Your task to perform on an android device: Go to sound settings Image 0: 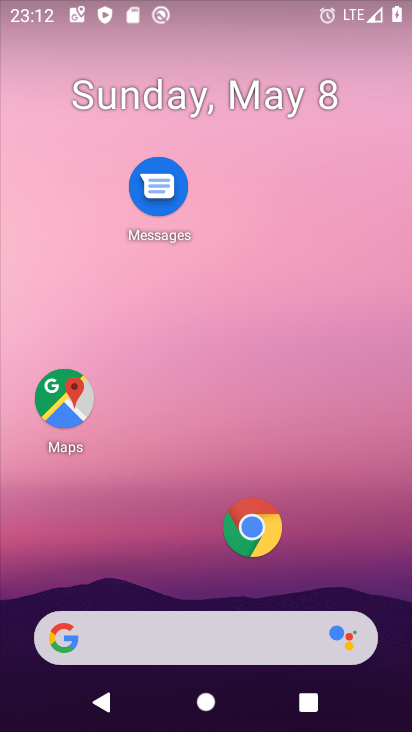
Step 0: drag from (182, 578) to (192, 131)
Your task to perform on an android device: Go to sound settings Image 1: 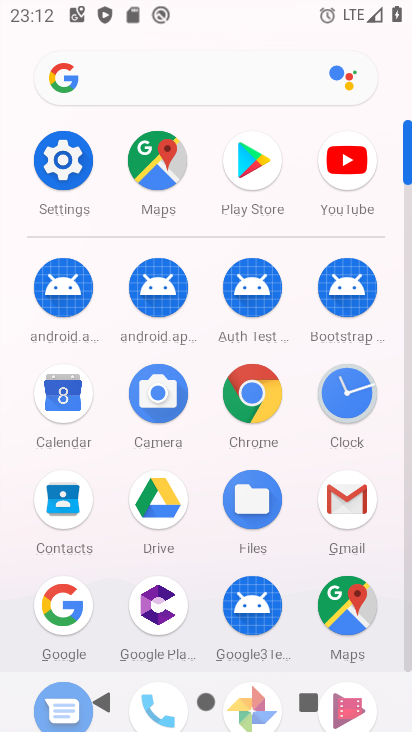
Step 1: click (63, 162)
Your task to perform on an android device: Go to sound settings Image 2: 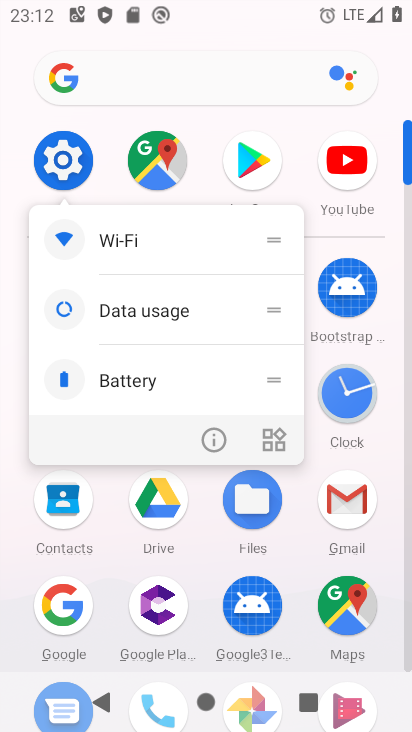
Step 2: click (65, 157)
Your task to perform on an android device: Go to sound settings Image 3: 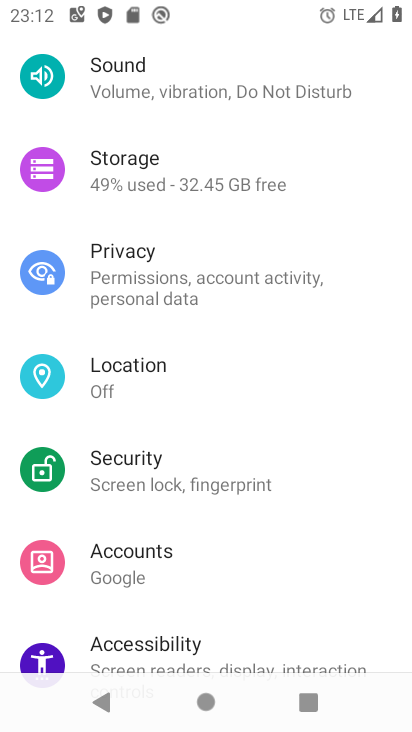
Step 3: click (153, 77)
Your task to perform on an android device: Go to sound settings Image 4: 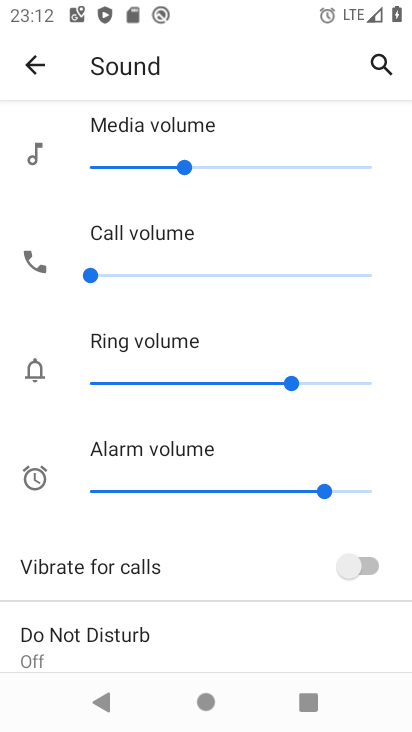
Step 4: task complete